Your task to perform on an android device: Show me productivity apps on the Play Store Image 0: 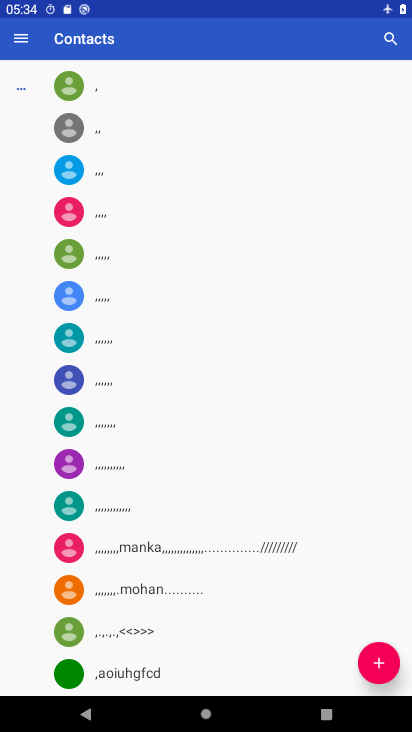
Step 0: press home button
Your task to perform on an android device: Show me productivity apps on the Play Store Image 1: 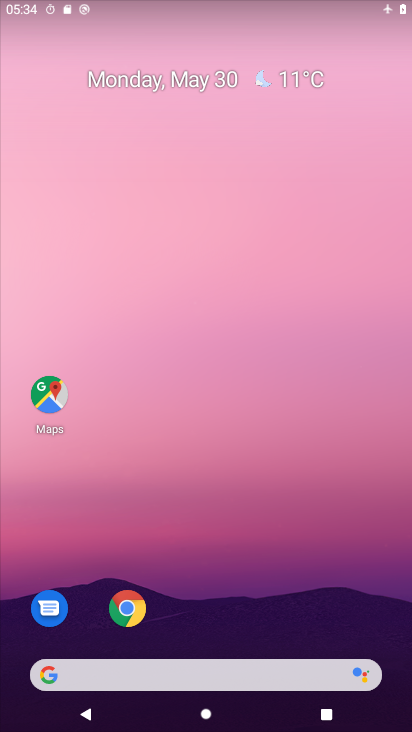
Step 1: drag from (288, 566) to (215, 24)
Your task to perform on an android device: Show me productivity apps on the Play Store Image 2: 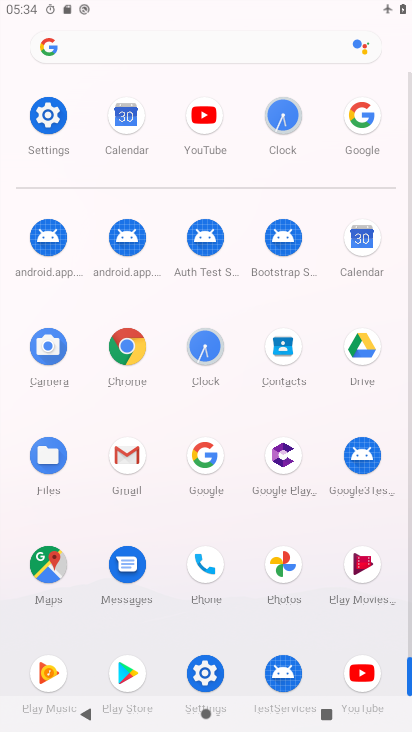
Step 2: click (116, 671)
Your task to perform on an android device: Show me productivity apps on the Play Store Image 3: 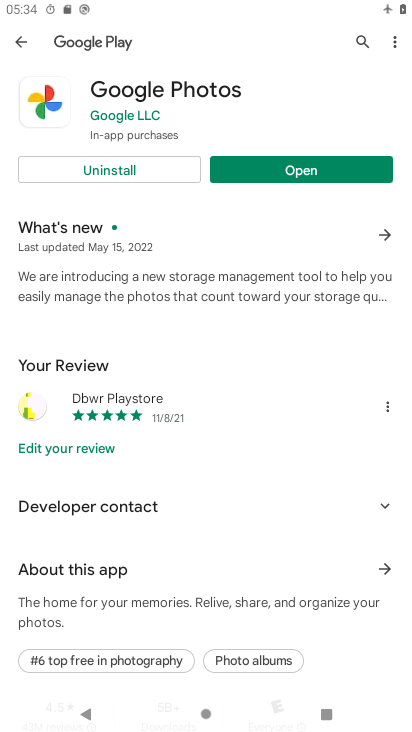
Step 3: click (12, 36)
Your task to perform on an android device: Show me productivity apps on the Play Store Image 4: 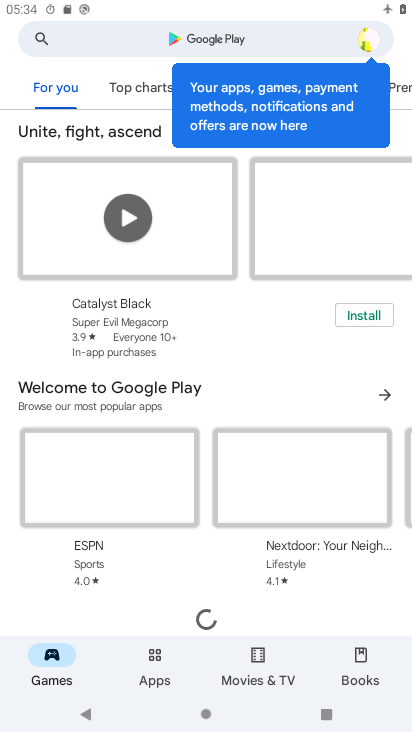
Step 4: click (148, 654)
Your task to perform on an android device: Show me productivity apps on the Play Store Image 5: 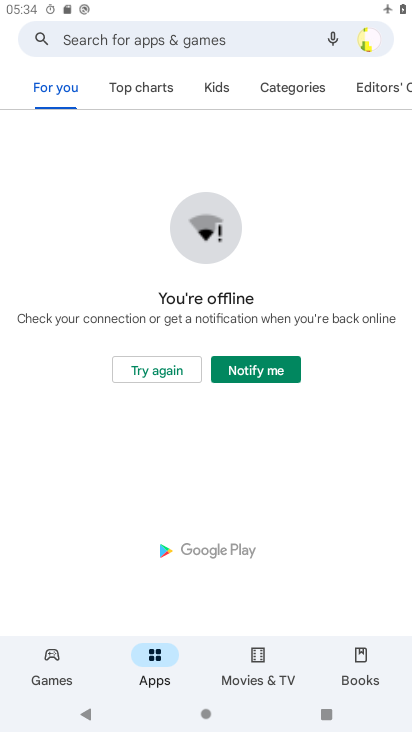
Step 5: click (153, 29)
Your task to perform on an android device: Show me productivity apps on the Play Store Image 6: 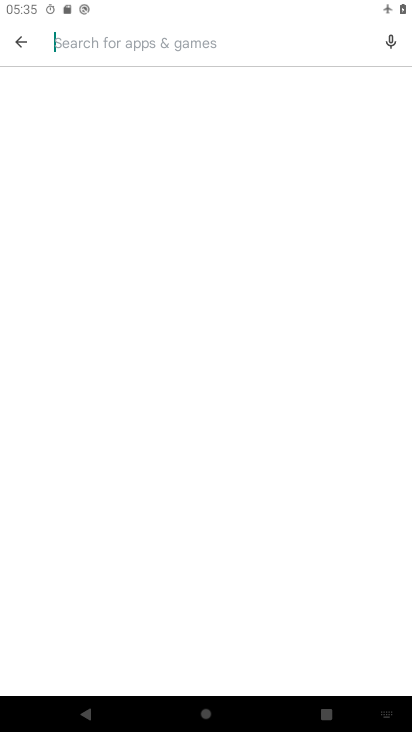
Step 6: type "productivity apps"
Your task to perform on an android device: Show me productivity apps on the Play Store Image 7: 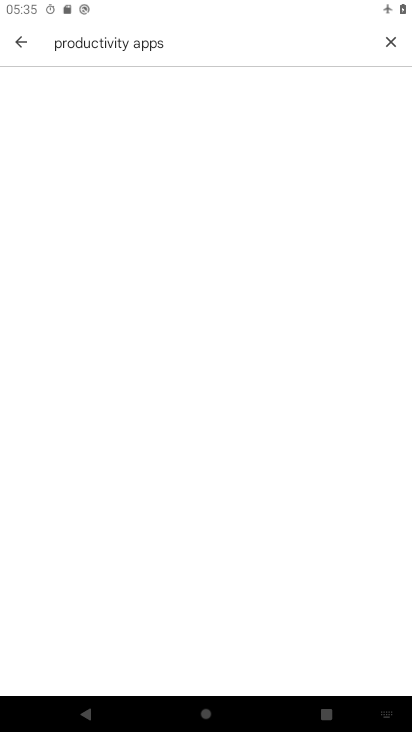
Step 7: task complete